Your task to perform on an android device: Open eBay Image 0: 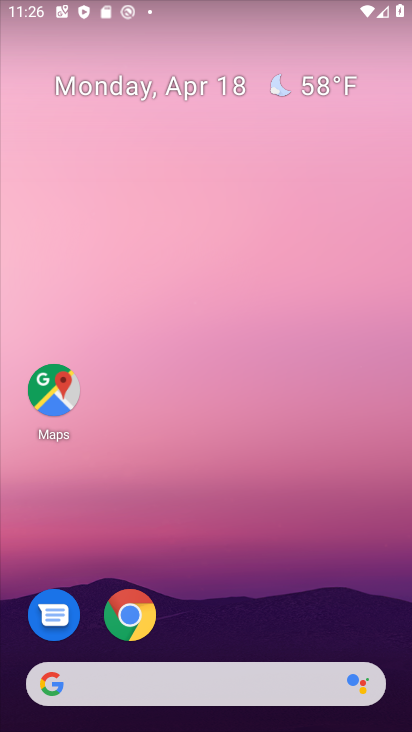
Step 0: drag from (318, 461) to (344, 148)
Your task to perform on an android device: Open eBay Image 1: 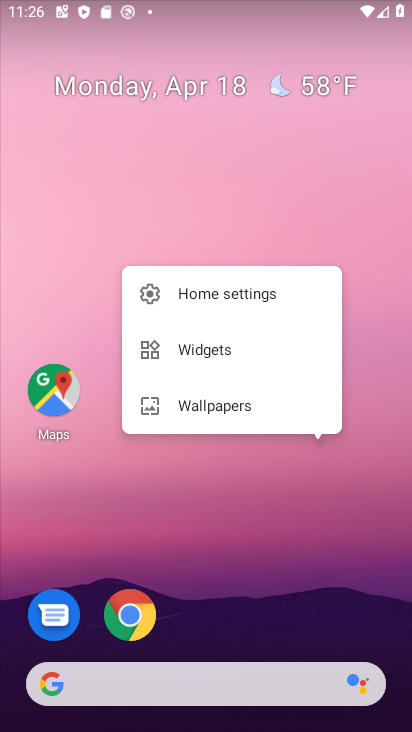
Step 1: click (365, 563)
Your task to perform on an android device: Open eBay Image 2: 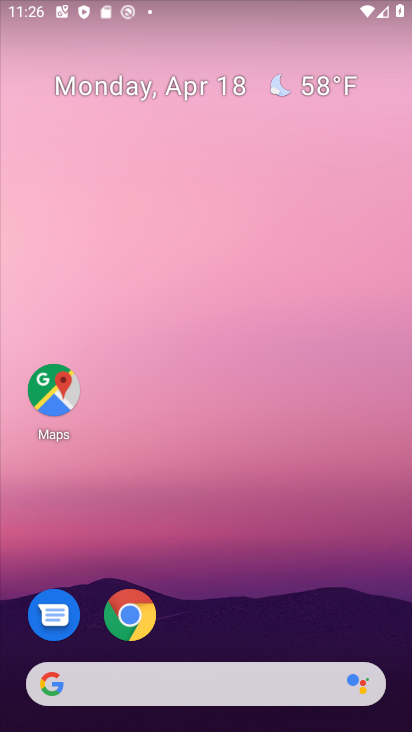
Step 2: drag from (321, 493) to (328, 33)
Your task to perform on an android device: Open eBay Image 3: 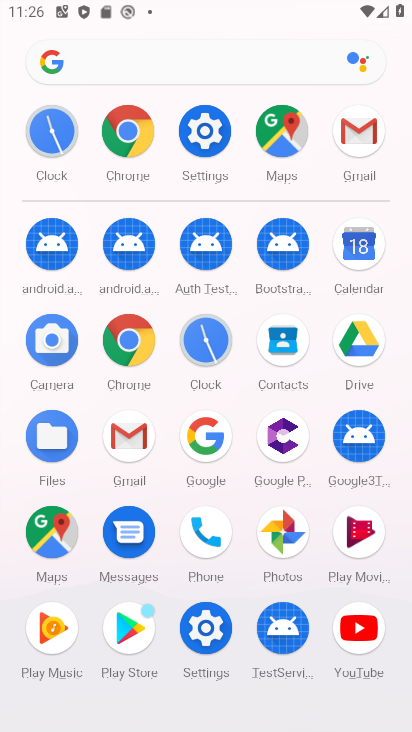
Step 3: click (123, 339)
Your task to perform on an android device: Open eBay Image 4: 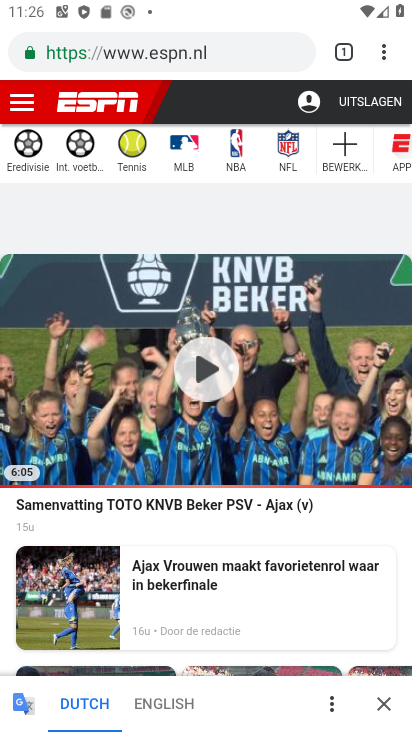
Step 4: press back button
Your task to perform on an android device: Open eBay Image 5: 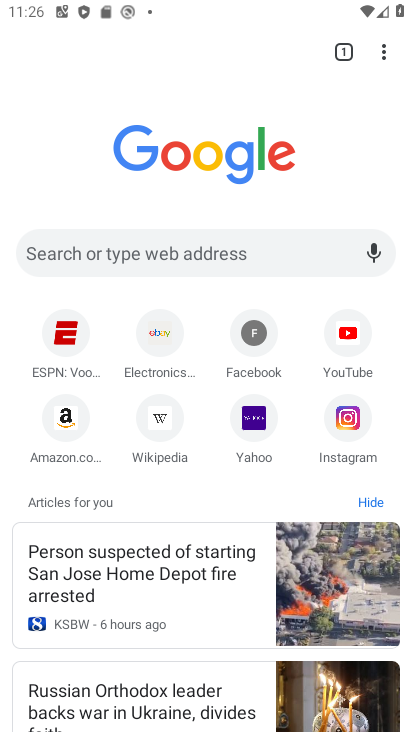
Step 5: click (170, 344)
Your task to perform on an android device: Open eBay Image 6: 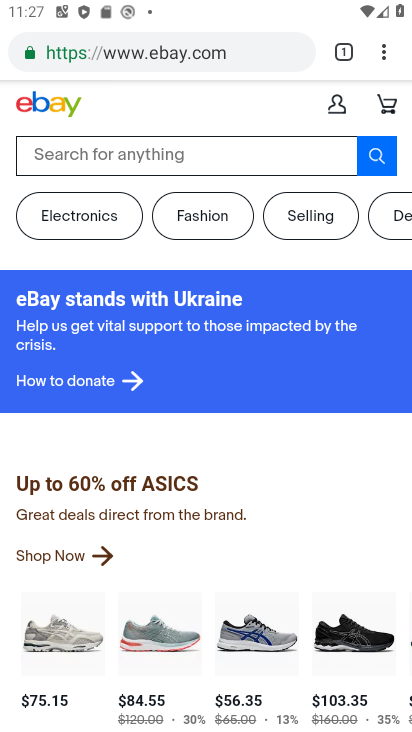
Step 6: task complete